Your task to perform on an android device: check storage Image 0: 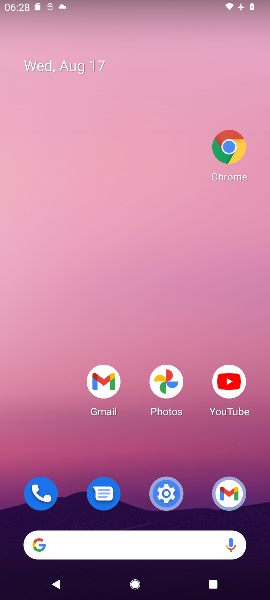
Step 0: press home button
Your task to perform on an android device: check storage Image 1: 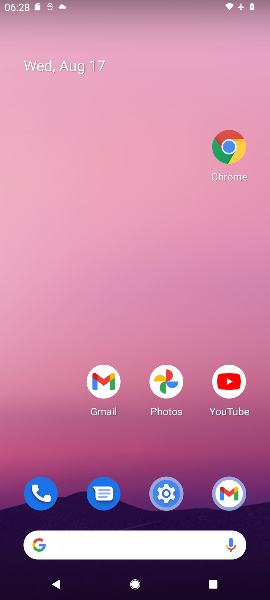
Step 1: click (161, 498)
Your task to perform on an android device: check storage Image 2: 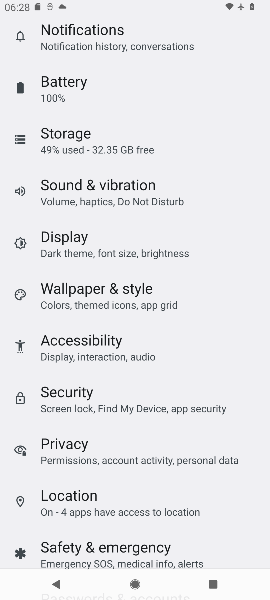
Step 2: click (64, 142)
Your task to perform on an android device: check storage Image 3: 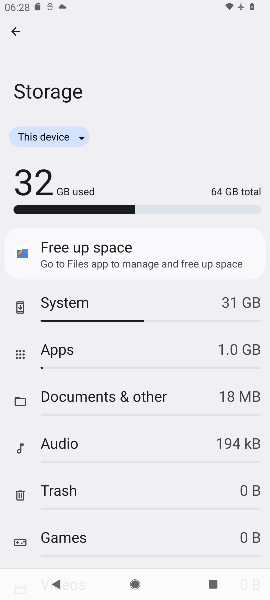
Step 3: task complete